Your task to perform on an android device: set an alarm Image 0: 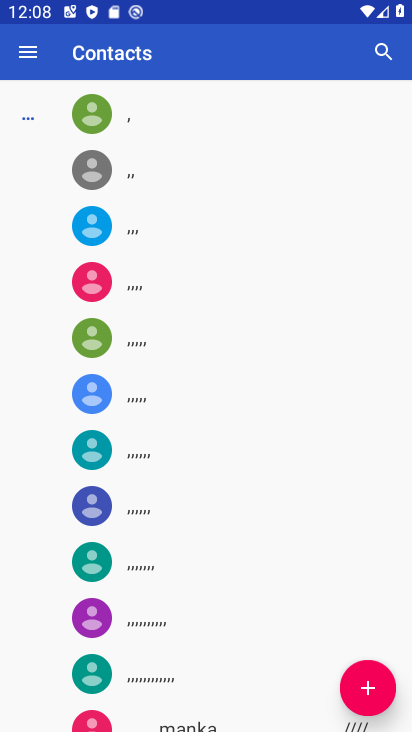
Step 0: press back button
Your task to perform on an android device: set an alarm Image 1: 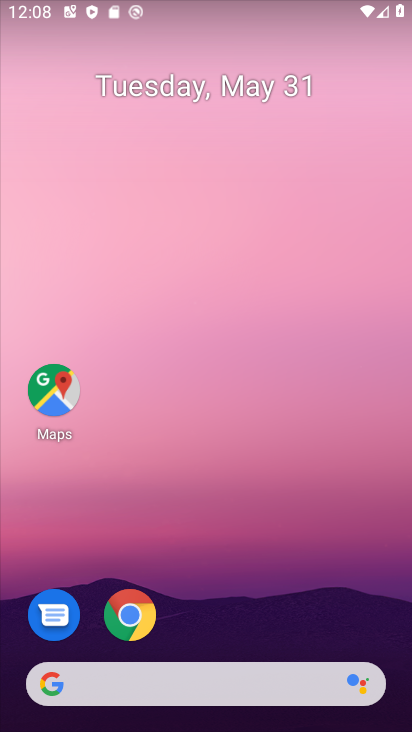
Step 1: drag from (357, 640) to (372, 169)
Your task to perform on an android device: set an alarm Image 2: 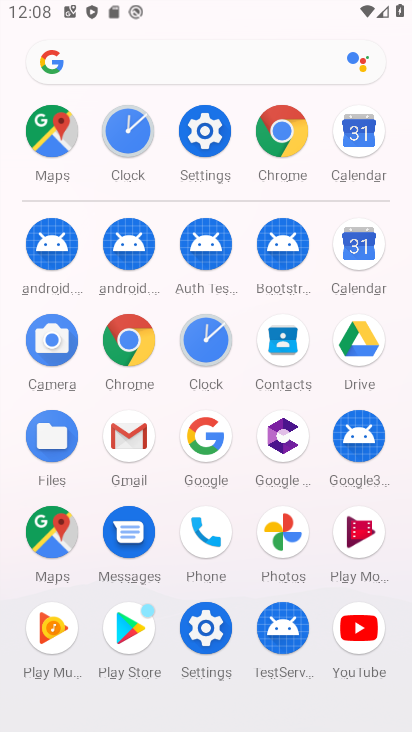
Step 2: click (216, 350)
Your task to perform on an android device: set an alarm Image 3: 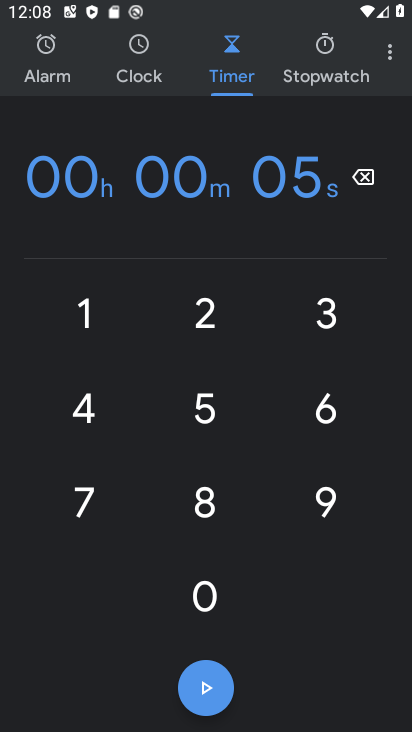
Step 3: click (38, 61)
Your task to perform on an android device: set an alarm Image 4: 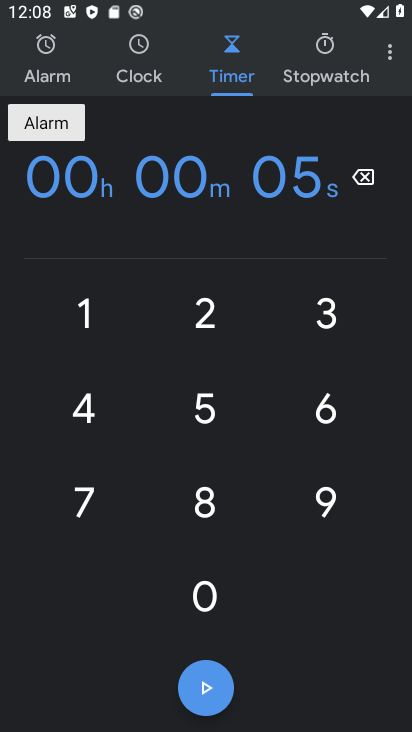
Step 4: click (38, 61)
Your task to perform on an android device: set an alarm Image 5: 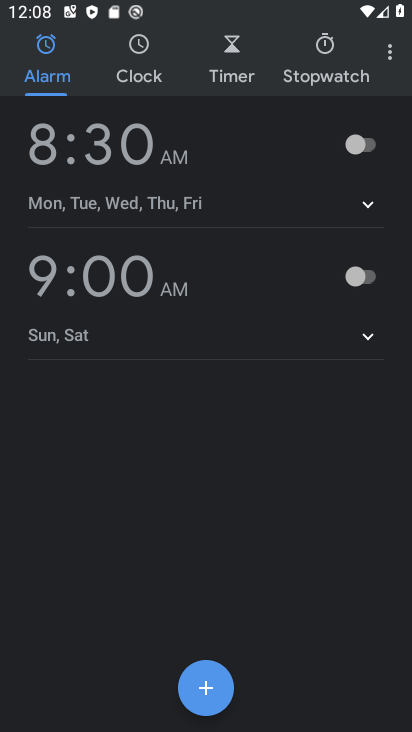
Step 5: click (217, 706)
Your task to perform on an android device: set an alarm Image 6: 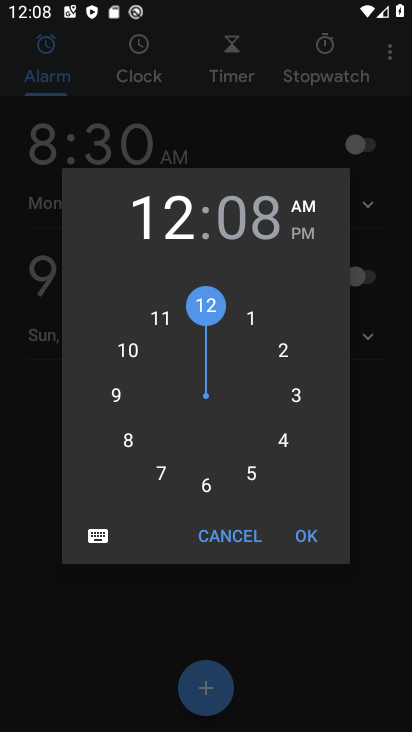
Step 6: click (249, 471)
Your task to perform on an android device: set an alarm Image 7: 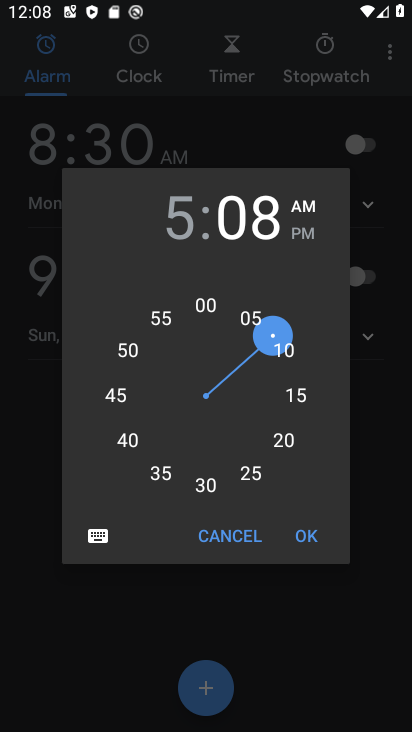
Step 7: click (200, 314)
Your task to perform on an android device: set an alarm Image 8: 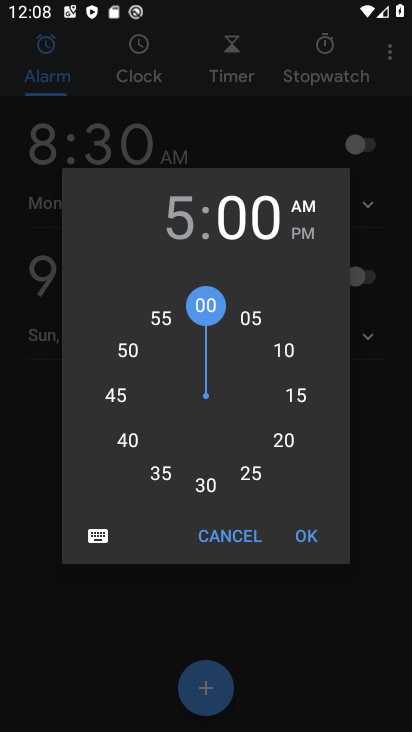
Step 8: click (306, 227)
Your task to perform on an android device: set an alarm Image 9: 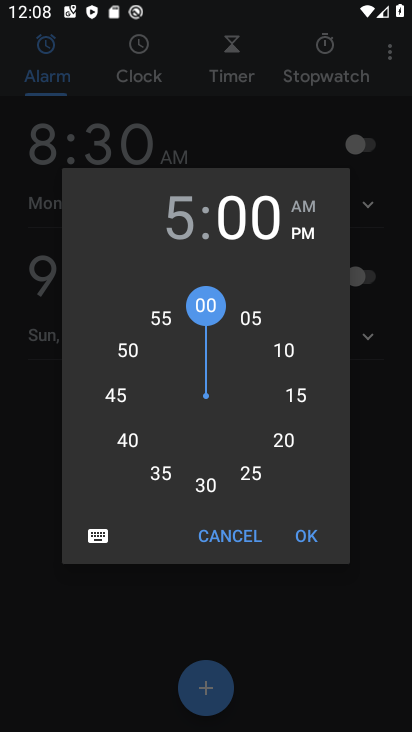
Step 9: click (311, 546)
Your task to perform on an android device: set an alarm Image 10: 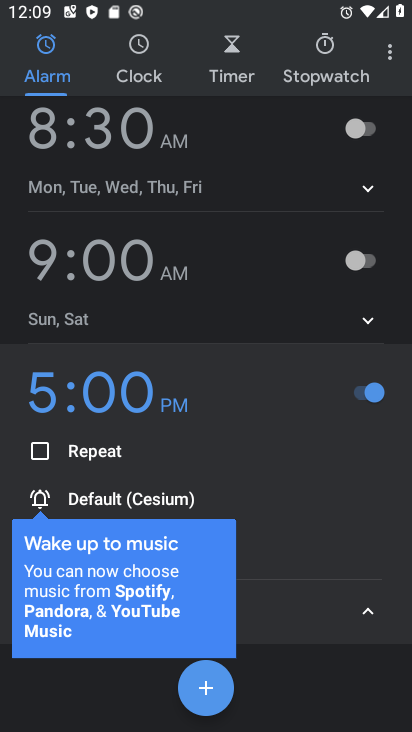
Step 10: task complete